Your task to perform on an android device: add a label to a message in the gmail app Image 0: 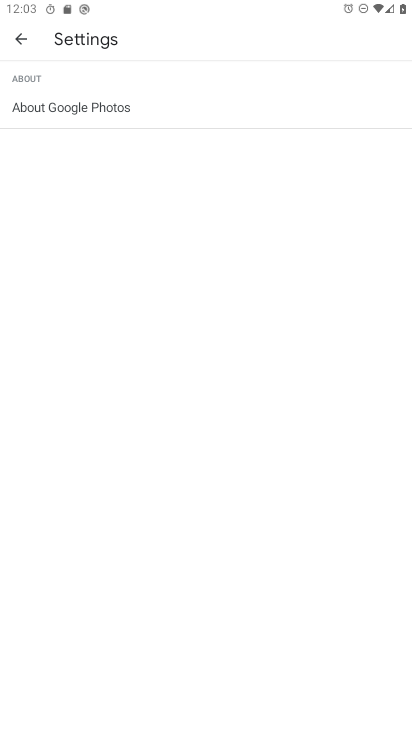
Step 0: press home button
Your task to perform on an android device: add a label to a message in the gmail app Image 1: 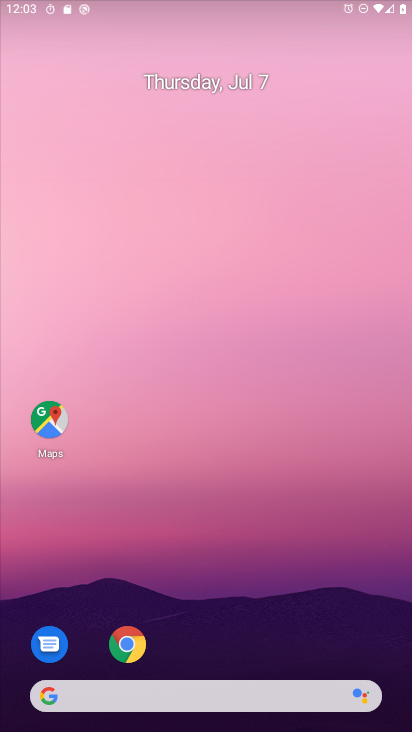
Step 1: drag from (232, 659) to (242, 163)
Your task to perform on an android device: add a label to a message in the gmail app Image 2: 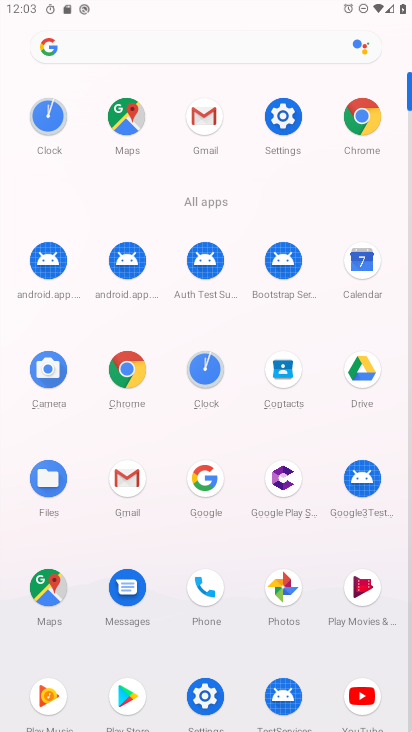
Step 2: click (205, 117)
Your task to perform on an android device: add a label to a message in the gmail app Image 3: 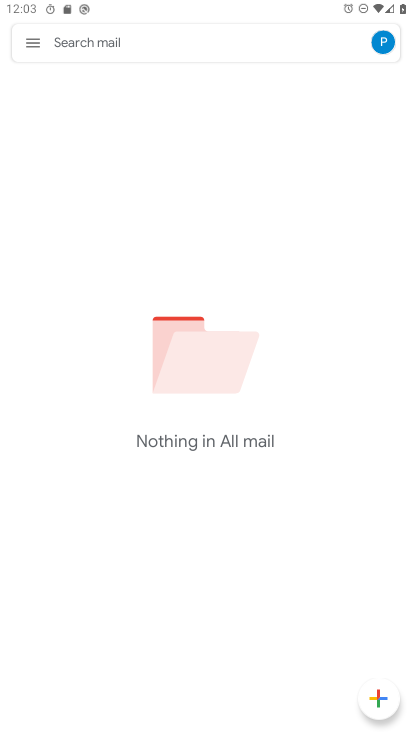
Step 3: task complete